Your task to perform on an android device: Clear the cart on amazon.com. Image 0: 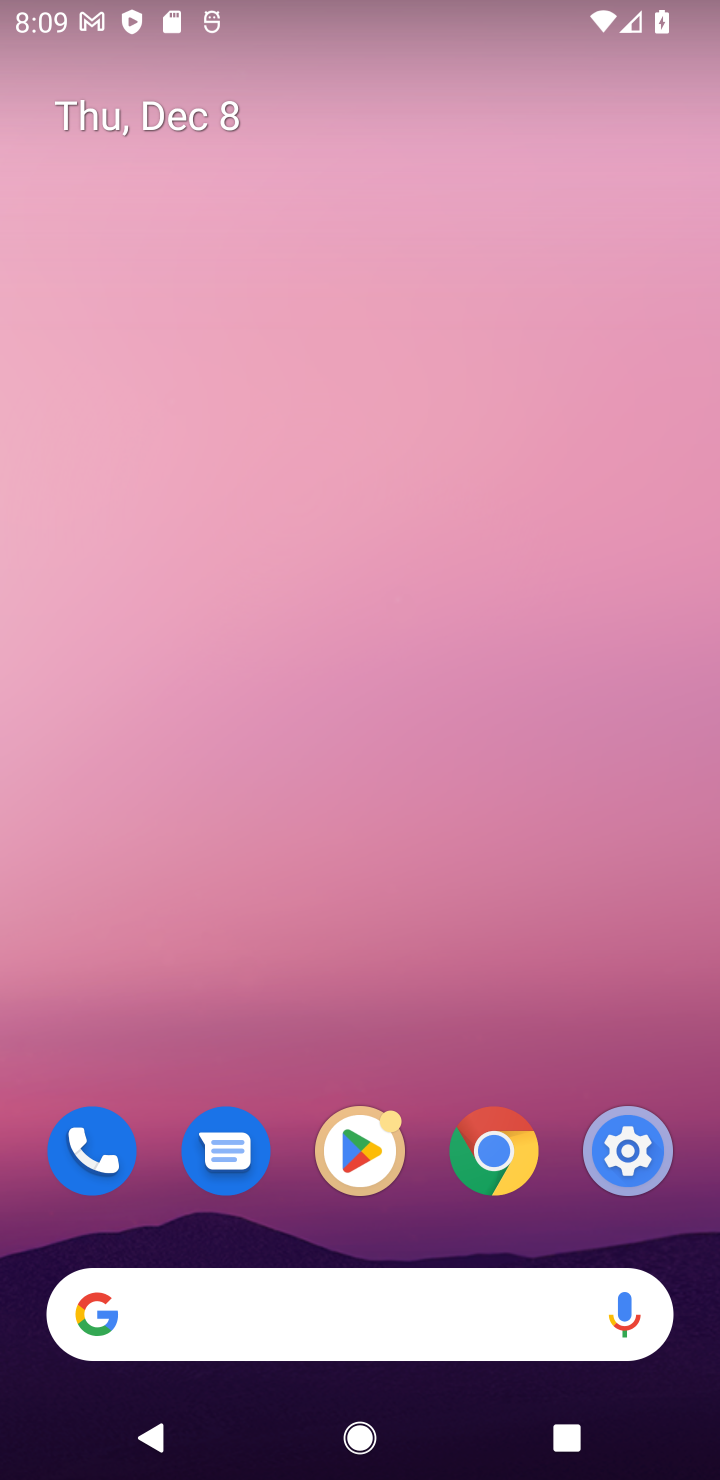
Step 0: task complete